Your task to perform on an android device: turn on improve location accuracy Image 0: 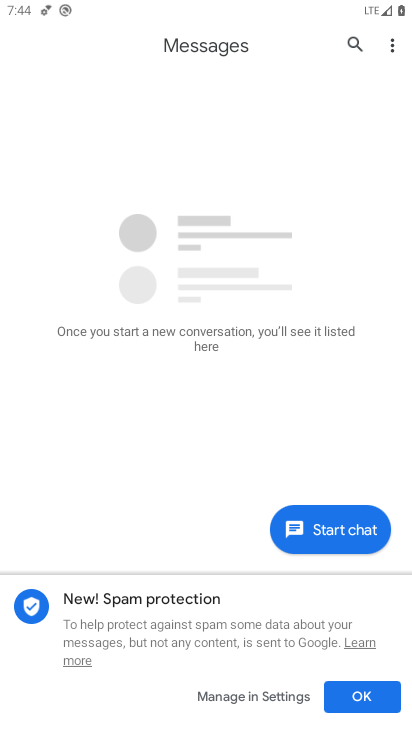
Step 0: press home button
Your task to perform on an android device: turn on improve location accuracy Image 1: 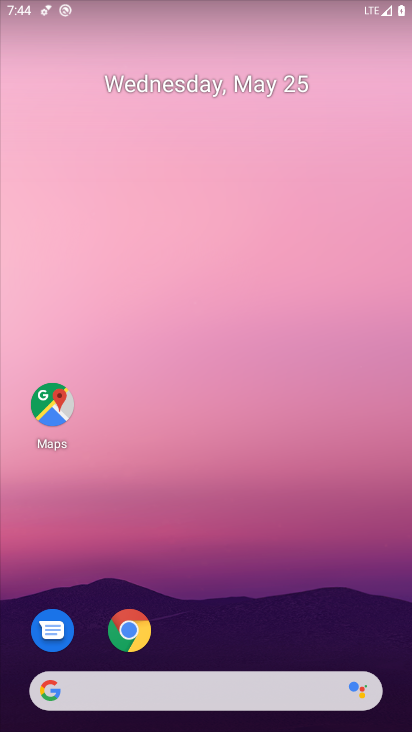
Step 1: drag from (223, 674) to (345, 276)
Your task to perform on an android device: turn on improve location accuracy Image 2: 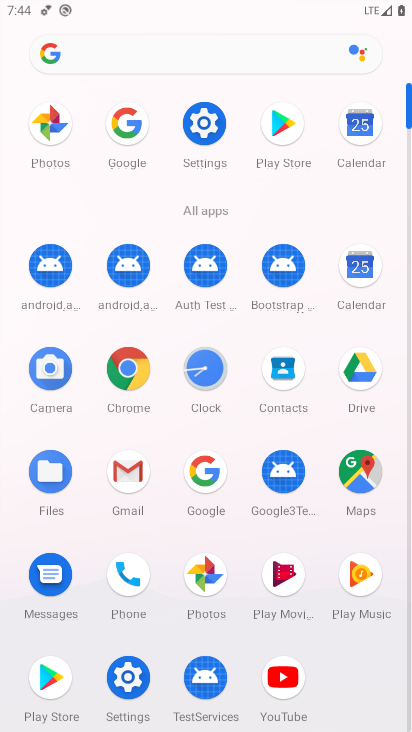
Step 2: click (202, 132)
Your task to perform on an android device: turn on improve location accuracy Image 3: 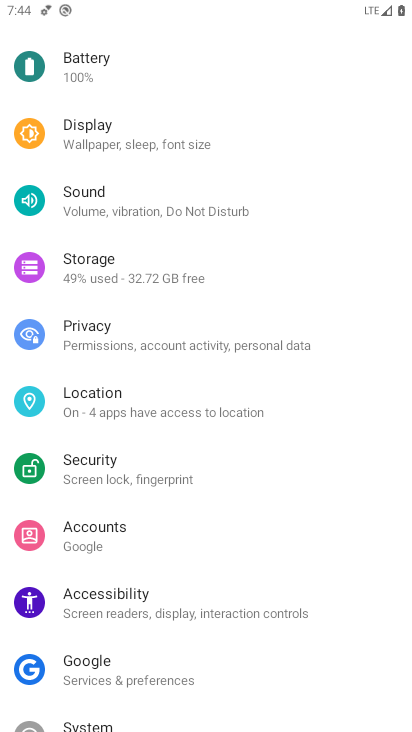
Step 3: click (148, 402)
Your task to perform on an android device: turn on improve location accuracy Image 4: 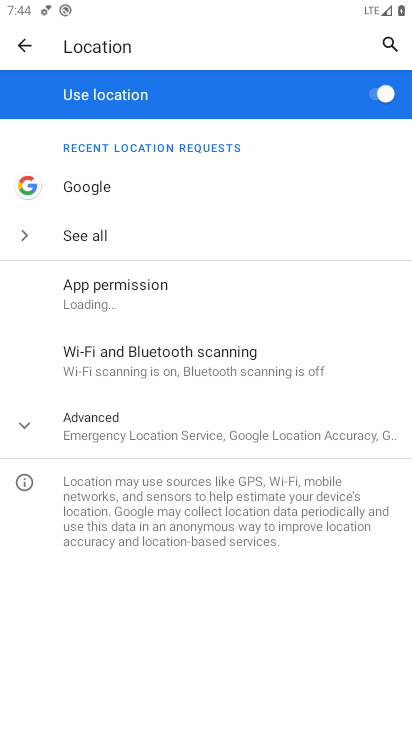
Step 4: click (118, 439)
Your task to perform on an android device: turn on improve location accuracy Image 5: 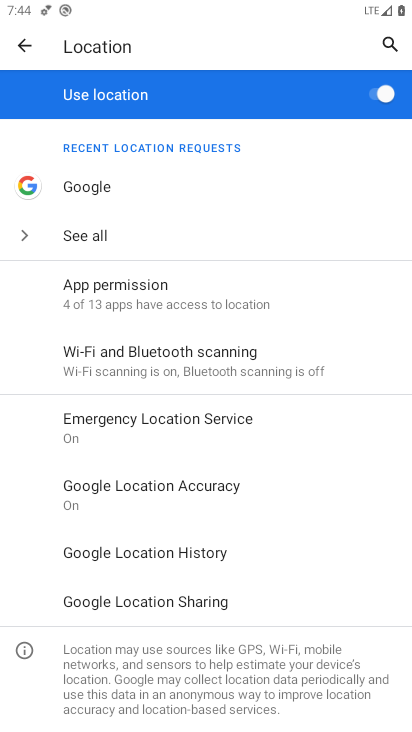
Step 5: click (130, 497)
Your task to perform on an android device: turn on improve location accuracy Image 6: 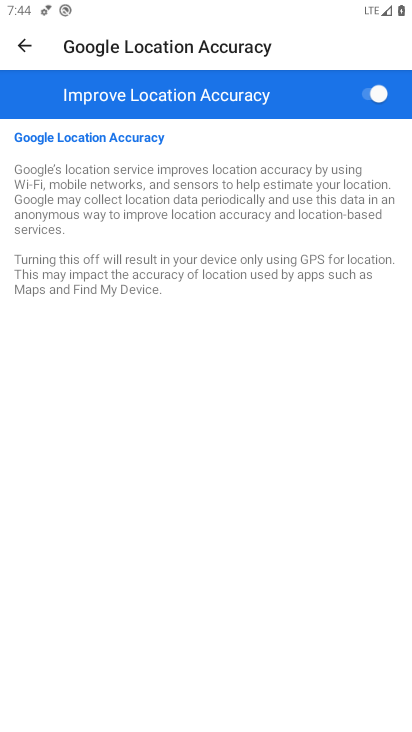
Step 6: task complete